Your task to perform on an android device: Open sound settings Image 0: 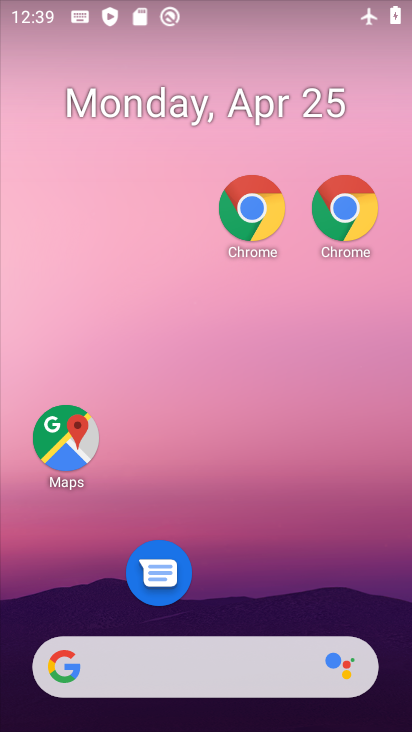
Step 0: drag from (301, 717) to (107, 57)
Your task to perform on an android device: Open sound settings Image 1: 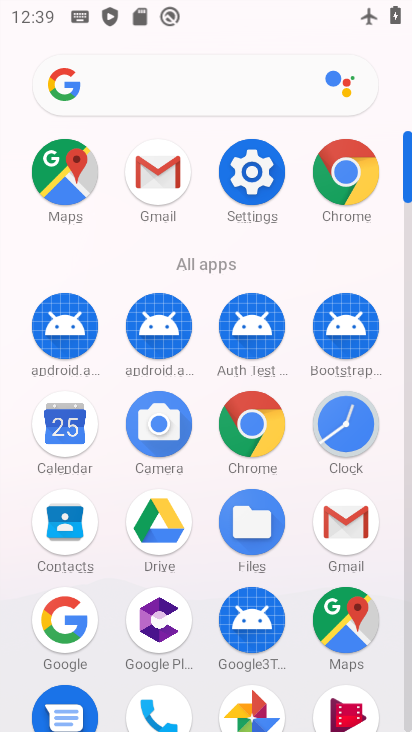
Step 1: click (330, 435)
Your task to perform on an android device: Open sound settings Image 2: 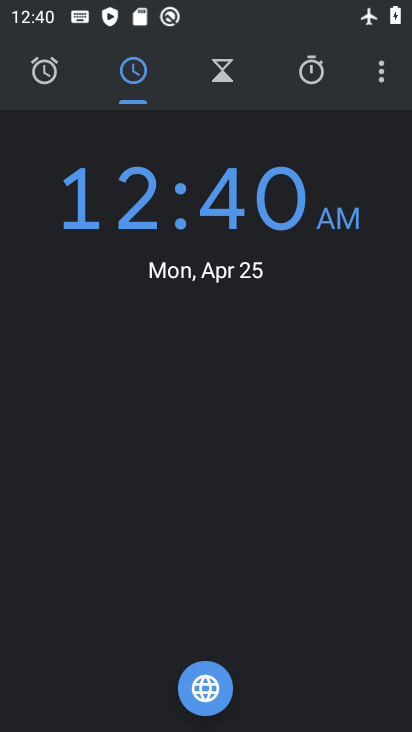
Step 2: press home button
Your task to perform on an android device: Open sound settings Image 3: 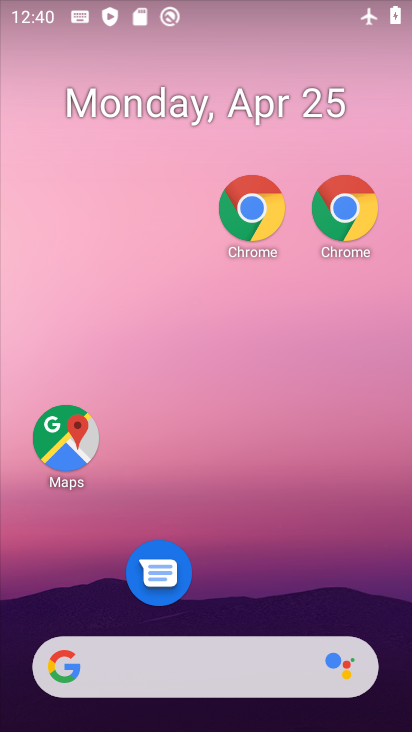
Step 3: drag from (206, 402) to (136, 168)
Your task to perform on an android device: Open sound settings Image 4: 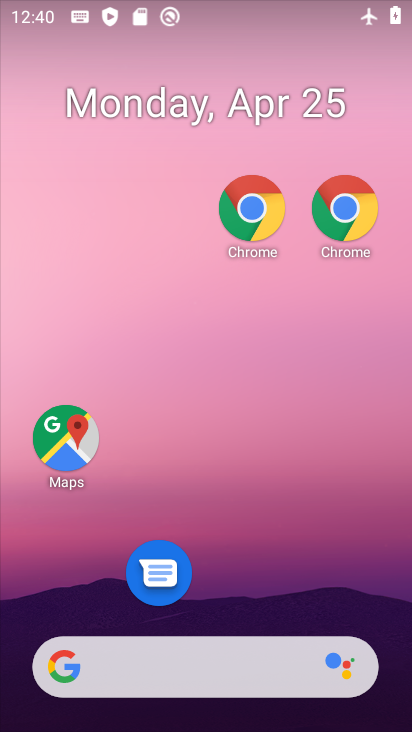
Step 4: drag from (230, 560) to (160, 50)
Your task to perform on an android device: Open sound settings Image 5: 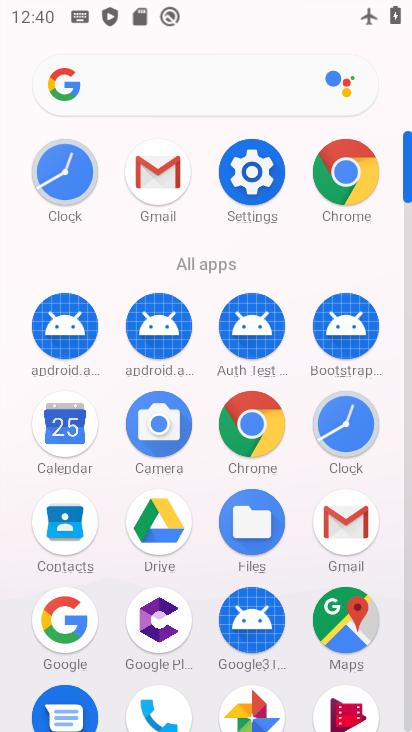
Step 5: click (256, 187)
Your task to perform on an android device: Open sound settings Image 6: 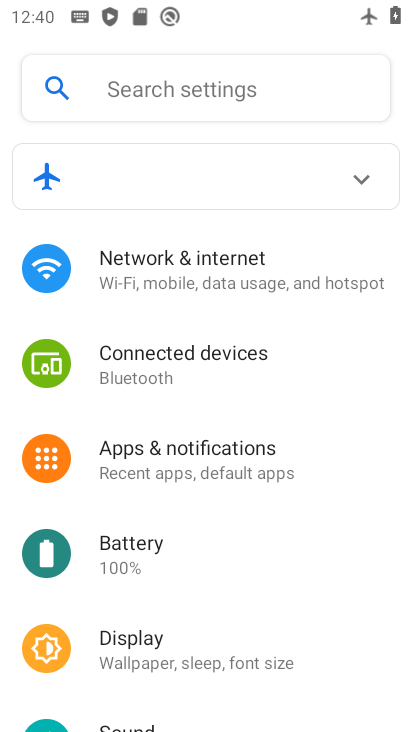
Step 6: drag from (167, 613) to (106, 236)
Your task to perform on an android device: Open sound settings Image 7: 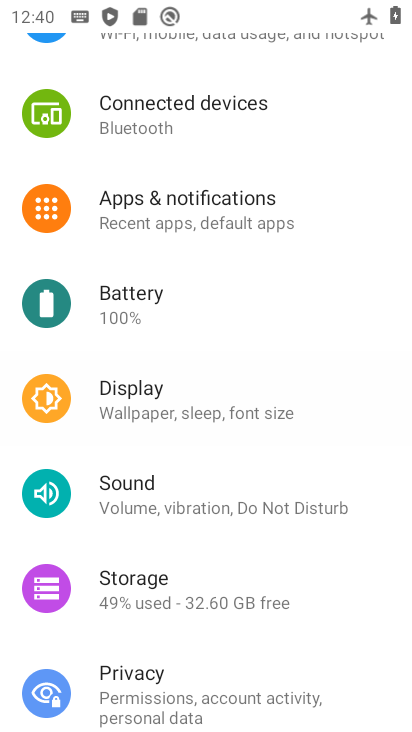
Step 7: drag from (185, 601) to (185, 184)
Your task to perform on an android device: Open sound settings Image 8: 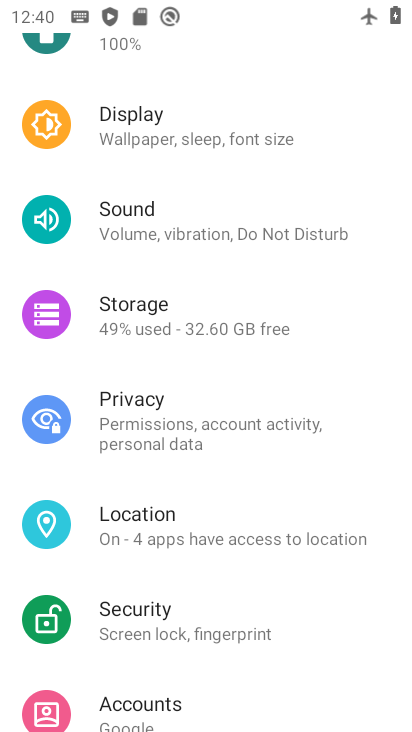
Step 8: click (132, 234)
Your task to perform on an android device: Open sound settings Image 9: 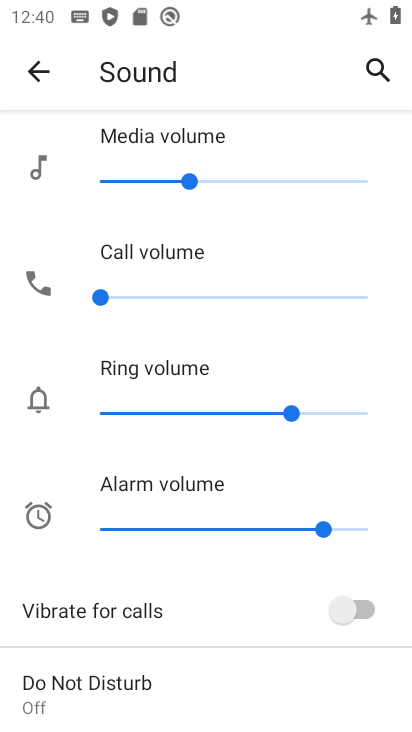
Step 9: task complete